Your task to perform on an android device: turn on airplane mode Image 0: 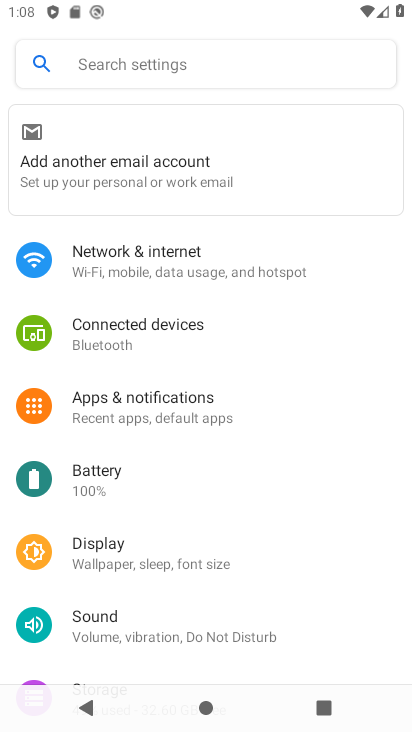
Step 0: click (133, 245)
Your task to perform on an android device: turn on airplane mode Image 1: 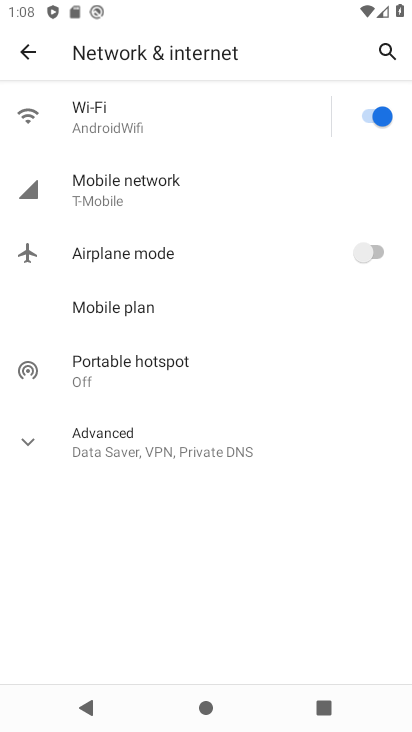
Step 1: click (364, 254)
Your task to perform on an android device: turn on airplane mode Image 2: 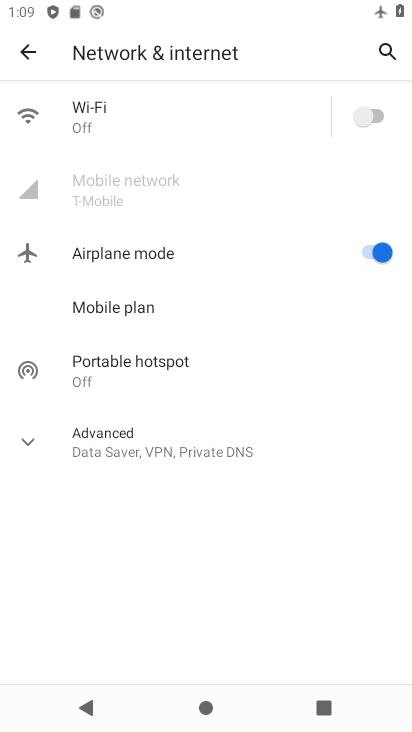
Step 2: task complete